Your task to perform on an android device: Go to Yahoo.com Image 0: 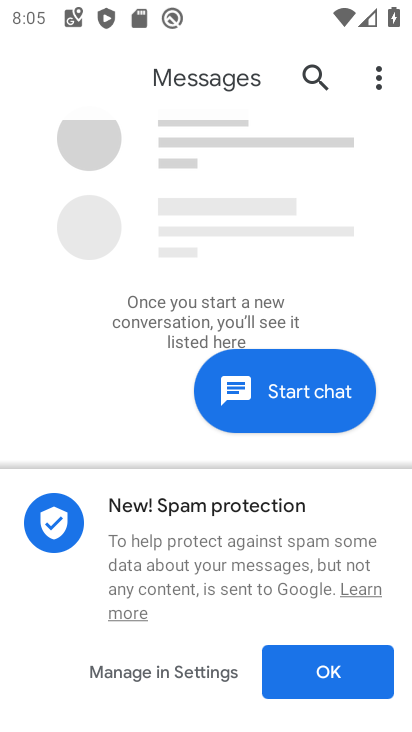
Step 0: press home button
Your task to perform on an android device: Go to Yahoo.com Image 1: 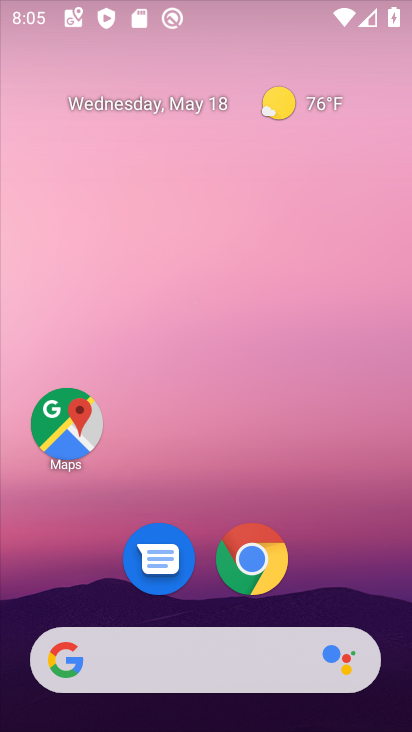
Step 1: drag from (230, 630) to (193, 12)
Your task to perform on an android device: Go to Yahoo.com Image 2: 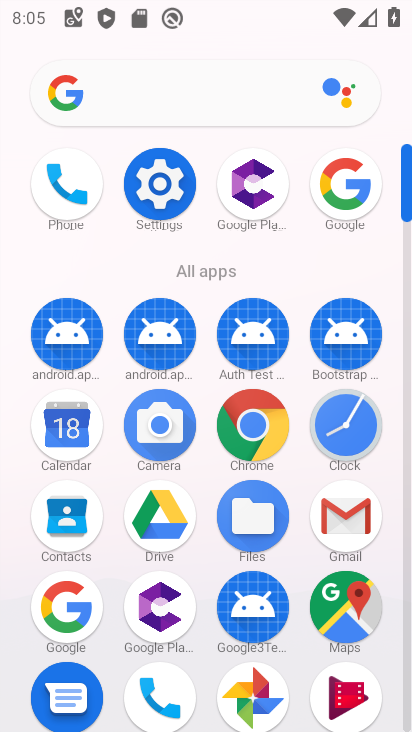
Step 2: click (230, 428)
Your task to perform on an android device: Go to Yahoo.com Image 3: 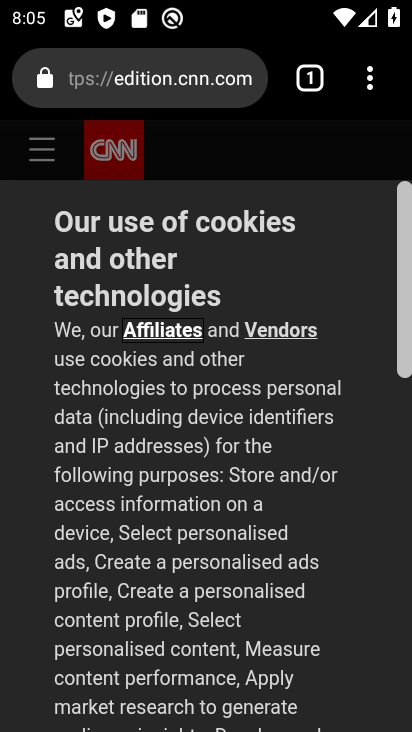
Step 3: click (316, 77)
Your task to perform on an android device: Go to Yahoo.com Image 4: 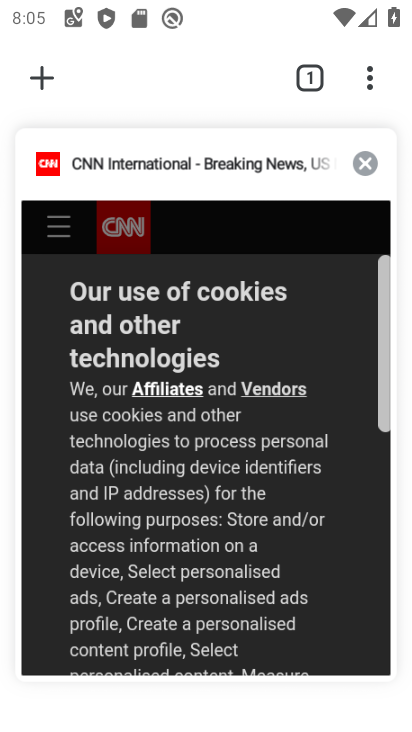
Step 4: click (47, 72)
Your task to perform on an android device: Go to Yahoo.com Image 5: 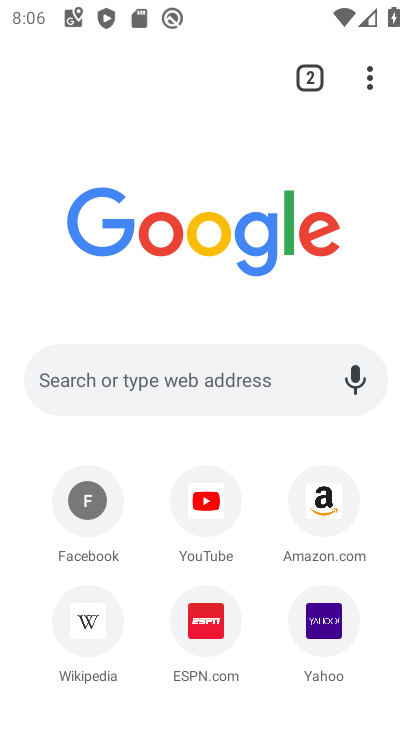
Step 5: click (324, 632)
Your task to perform on an android device: Go to Yahoo.com Image 6: 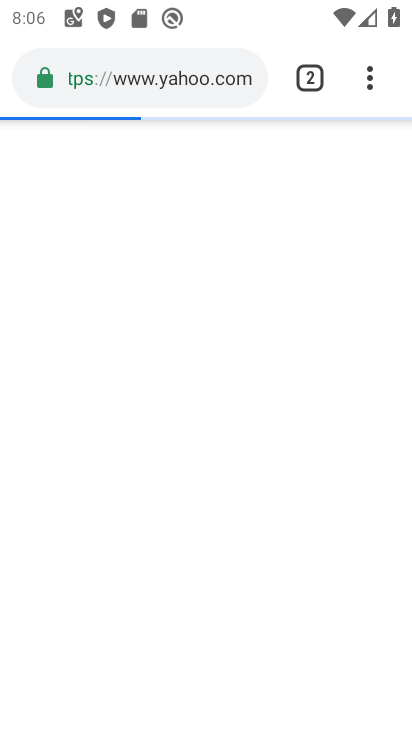
Step 6: task complete